Your task to perform on an android device: add a contact in the contacts app Image 0: 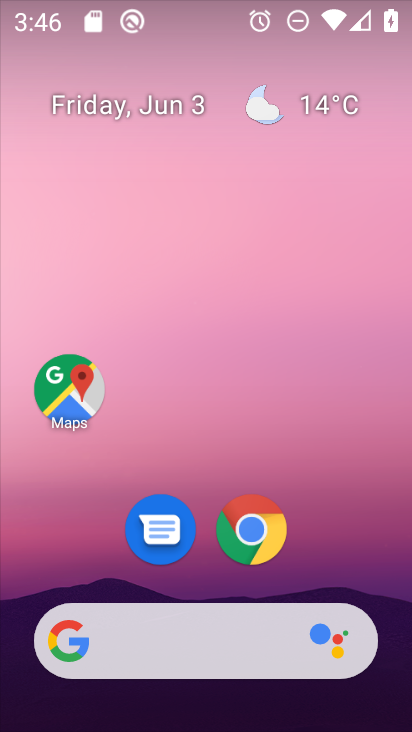
Step 0: drag from (358, 581) to (362, 115)
Your task to perform on an android device: add a contact in the contacts app Image 1: 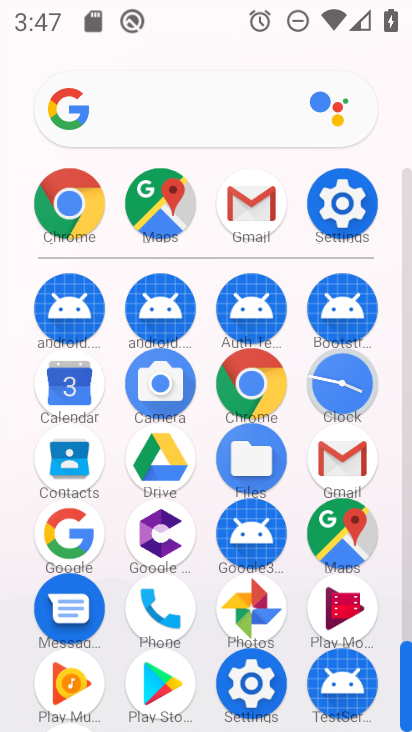
Step 1: click (75, 460)
Your task to perform on an android device: add a contact in the contacts app Image 2: 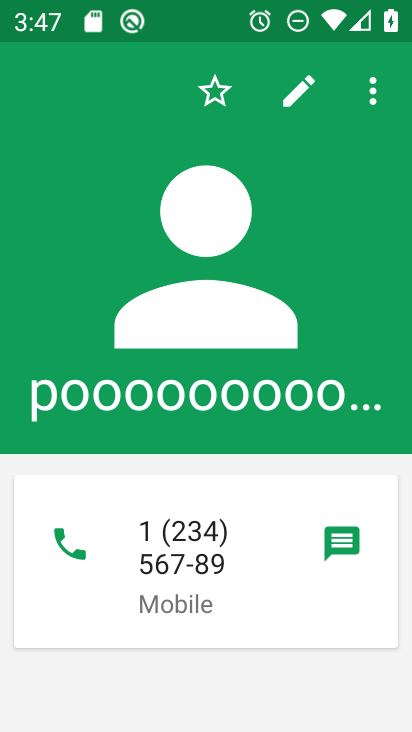
Step 2: press back button
Your task to perform on an android device: add a contact in the contacts app Image 3: 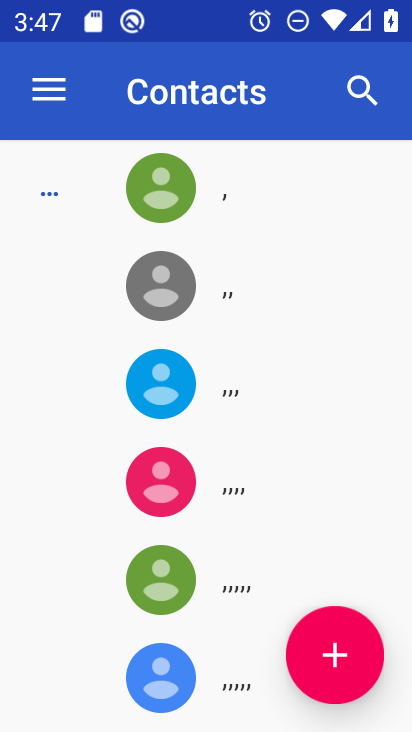
Step 3: click (349, 658)
Your task to perform on an android device: add a contact in the contacts app Image 4: 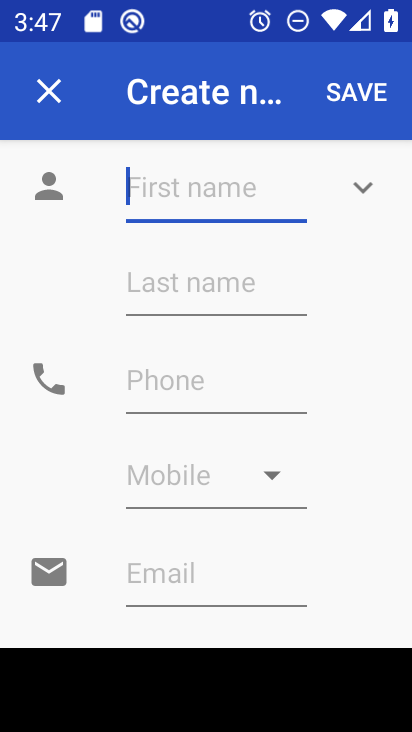
Step 4: click (187, 198)
Your task to perform on an android device: add a contact in the contacts app Image 5: 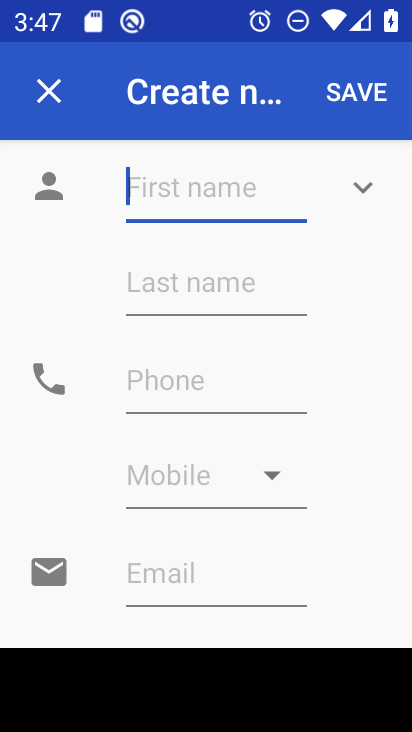
Step 5: type "pooooooo"
Your task to perform on an android device: add a contact in the contacts app Image 6: 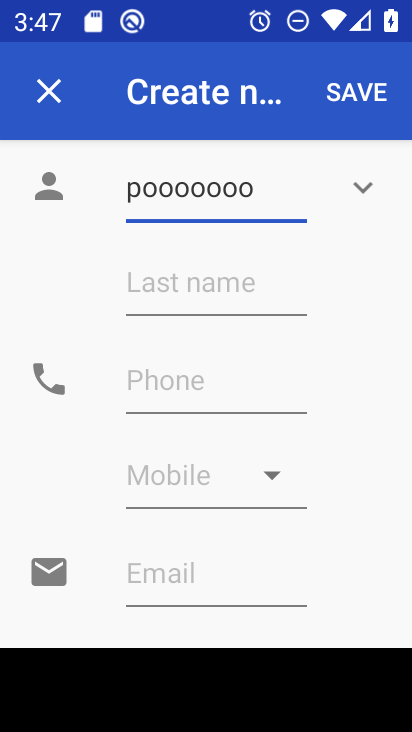
Step 6: click (153, 381)
Your task to perform on an android device: add a contact in the contacts app Image 7: 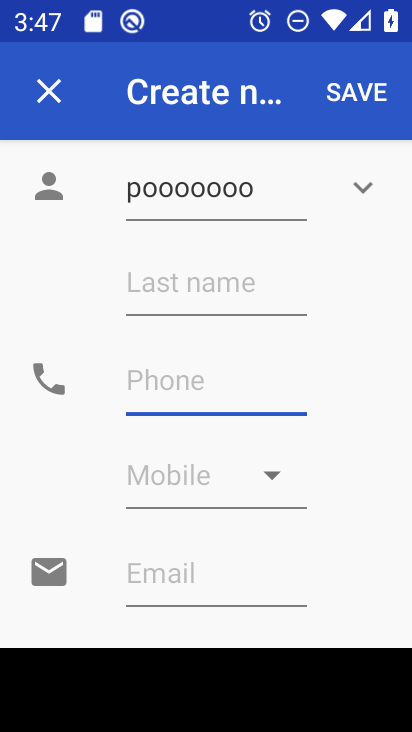
Step 7: click (203, 384)
Your task to perform on an android device: add a contact in the contacts app Image 8: 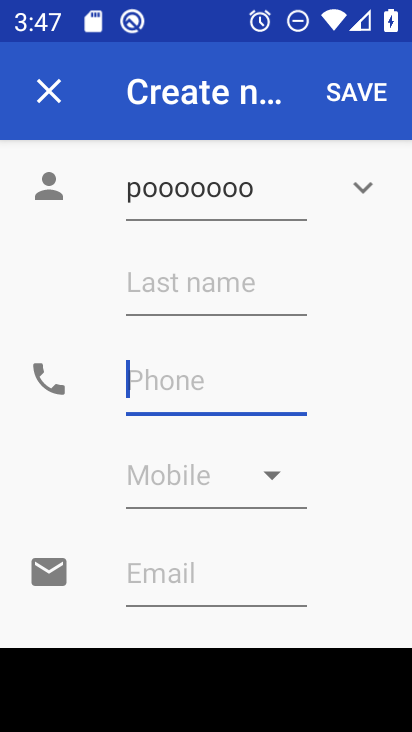
Step 8: click (165, 384)
Your task to perform on an android device: add a contact in the contacts app Image 9: 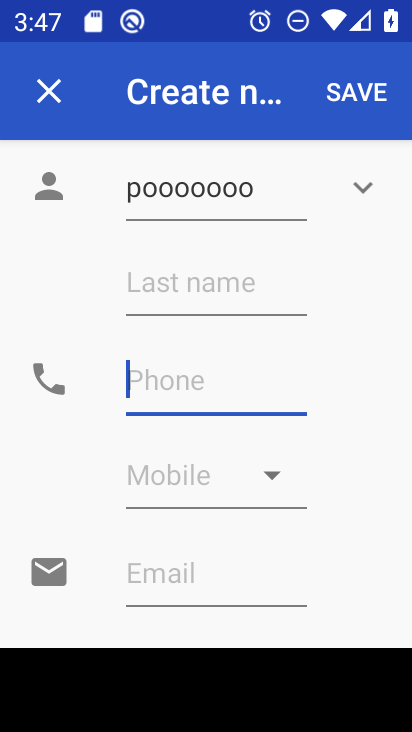
Step 9: type "123456677889"
Your task to perform on an android device: add a contact in the contacts app Image 10: 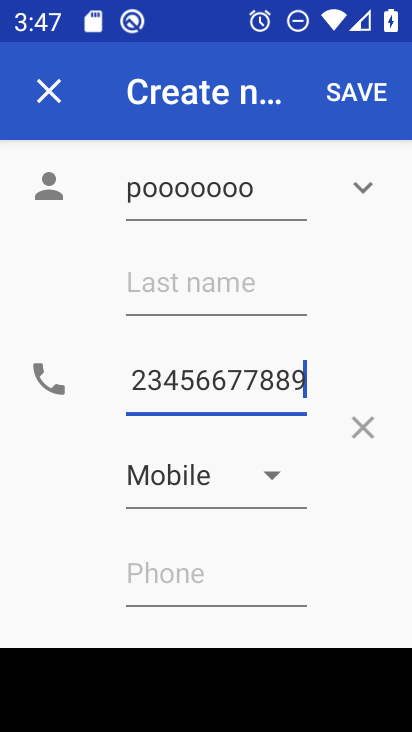
Step 10: click (358, 98)
Your task to perform on an android device: add a contact in the contacts app Image 11: 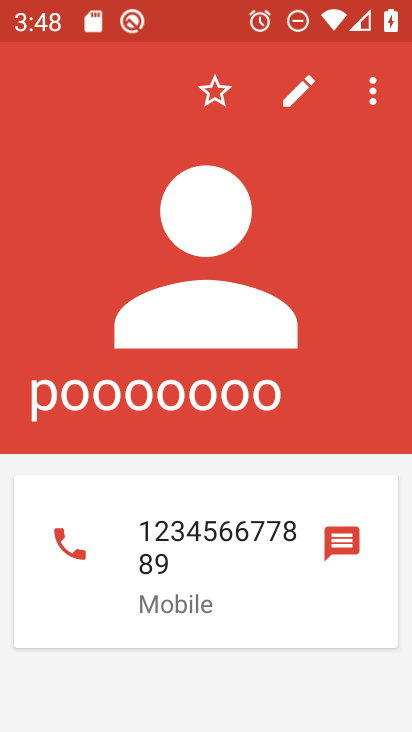
Step 11: task complete